Your task to perform on an android device: Find coffee shops on Maps Image 0: 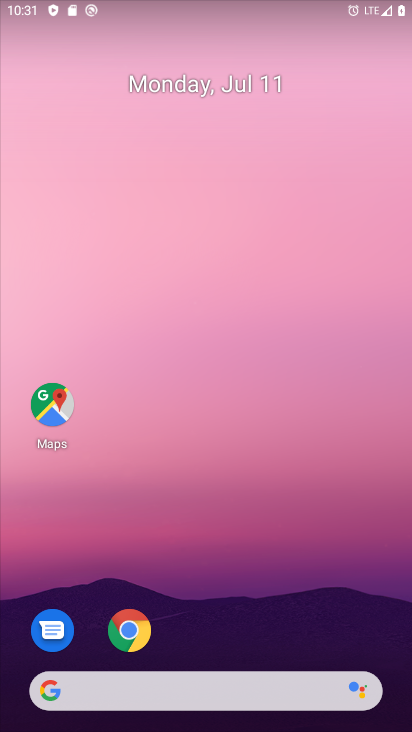
Step 0: drag from (328, 644) to (348, 80)
Your task to perform on an android device: Find coffee shops on Maps Image 1: 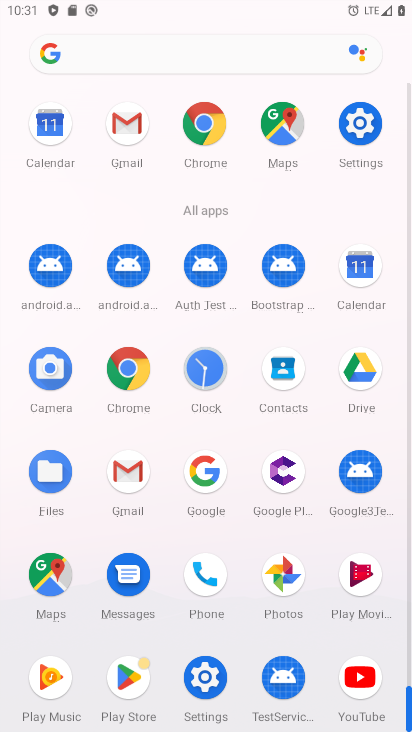
Step 1: click (64, 582)
Your task to perform on an android device: Find coffee shops on Maps Image 2: 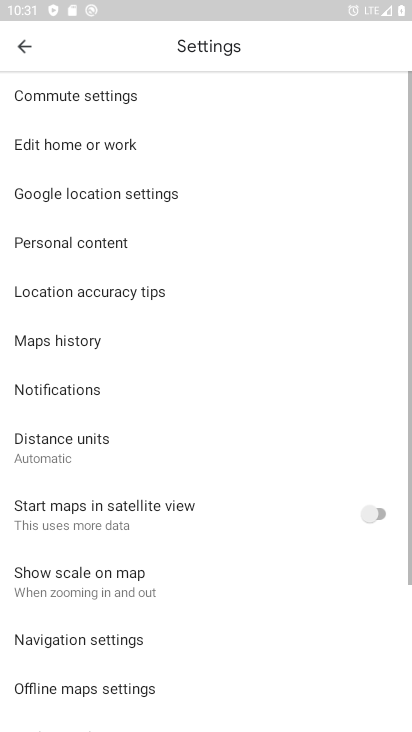
Step 2: drag from (225, 222) to (194, 720)
Your task to perform on an android device: Find coffee shops on Maps Image 3: 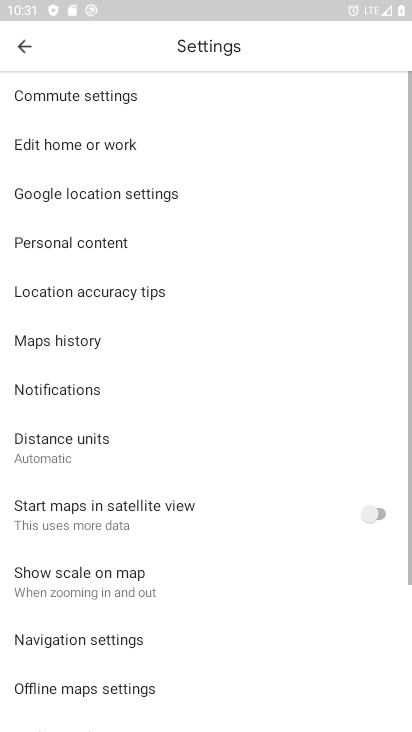
Step 3: click (26, 44)
Your task to perform on an android device: Find coffee shops on Maps Image 4: 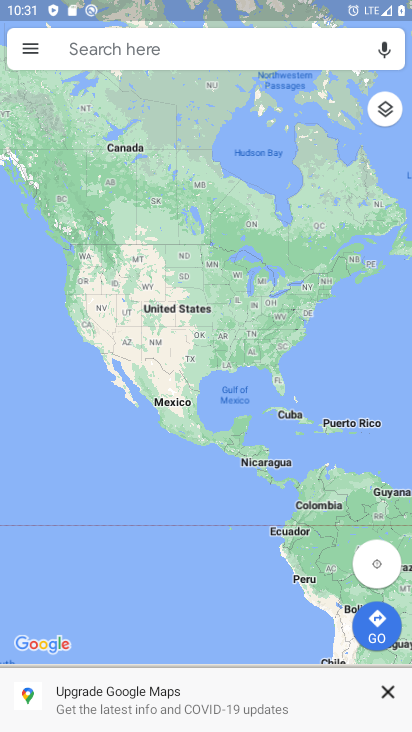
Step 4: click (165, 43)
Your task to perform on an android device: Find coffee shops on Maps Image 5: 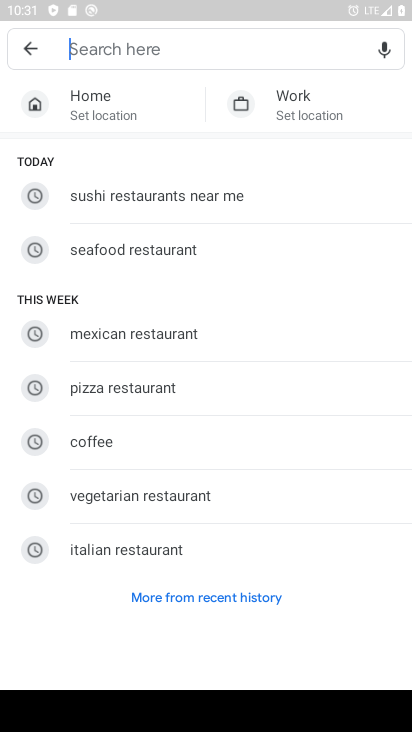
Step 5: click (114, 461)
Your task to perform on an android device: Find coffee shops on Maps Image 6: 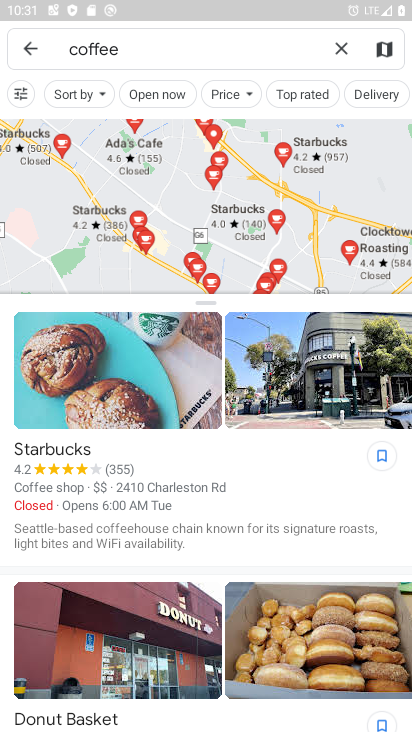
Step 6: task complete